Your task to perform on an android device: Open notification settings Image 0: 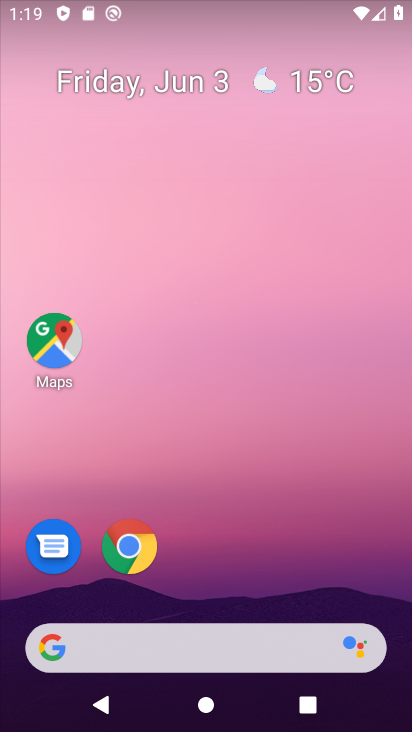
Step 0: drag from (305, 516) to (356, 163)
Your task to perform on an android device: Open notification settings Image 1: 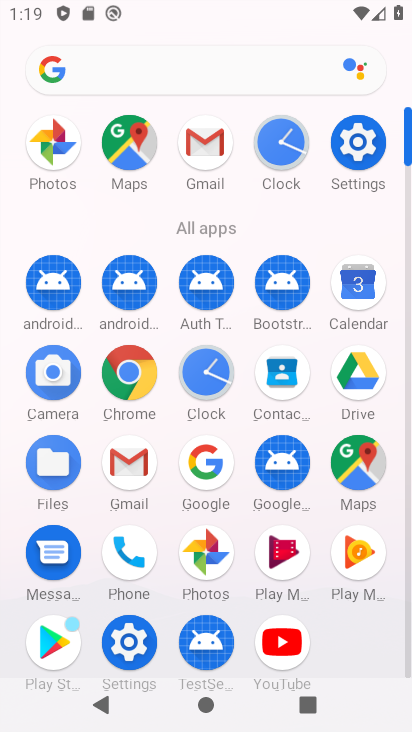
Step 1: click (148, 631)
Your task to perform on an android device: Open notification settings Image 2: 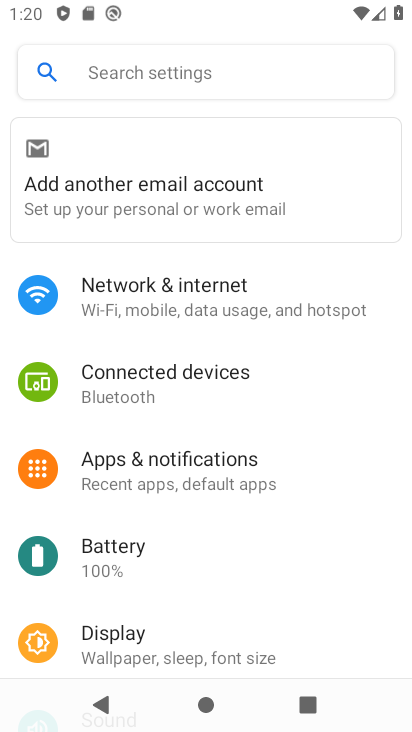
Step 2: click (197, 460)
Your task to perform on an android device: Open notification settings Image 3: 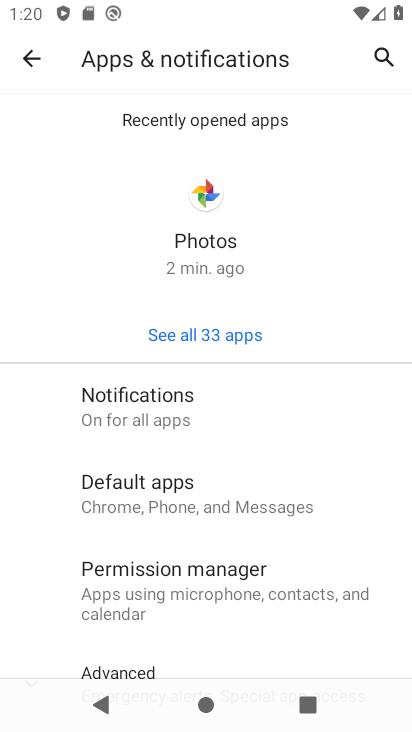
Step 3: click (198, 418)
Your task to perform on an android device: Open notification settings Image 4: 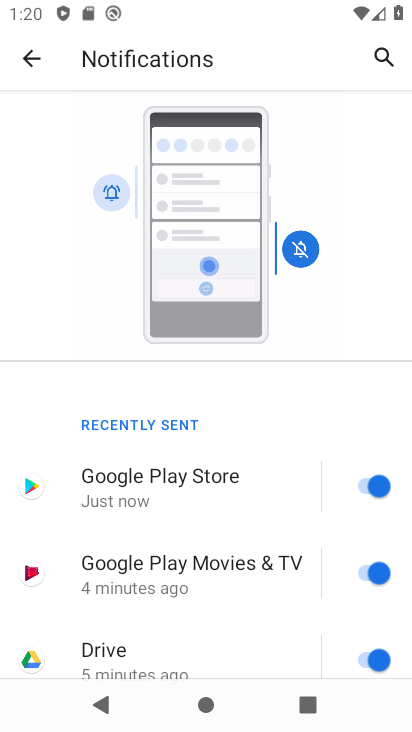
Step 4: task complete